Your task to perform on an android device: clear all cookies in the chrome app Image 0: 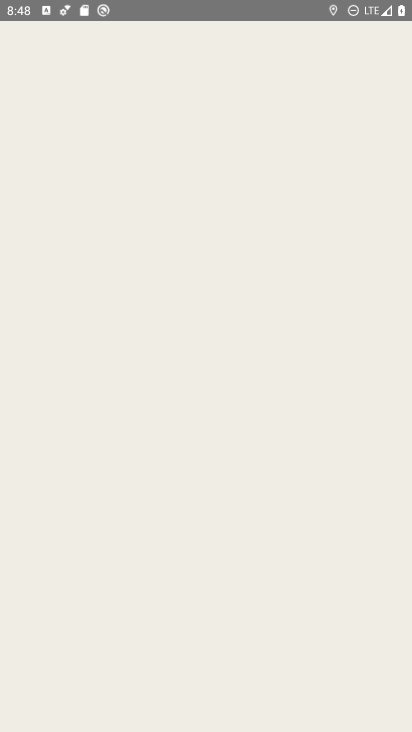
Step 0: press home button
Your task to perform on an android device: clear all cookies in the chrome app Image 1: 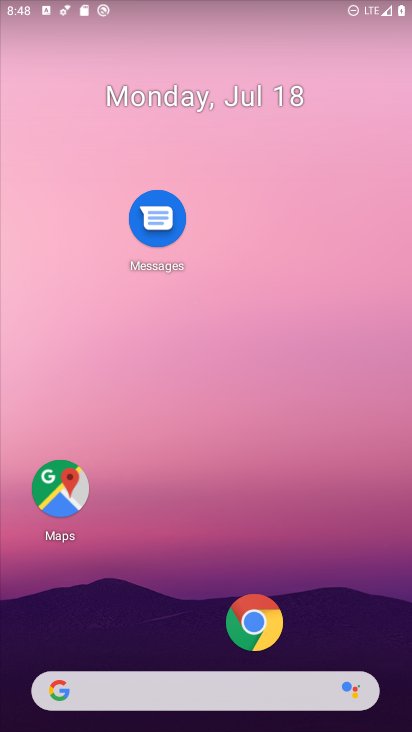
Step 1: drag from (209, 666) to (212, 131)
Your task to perform on an android device: clear all cookies in the chrome app Image 2: 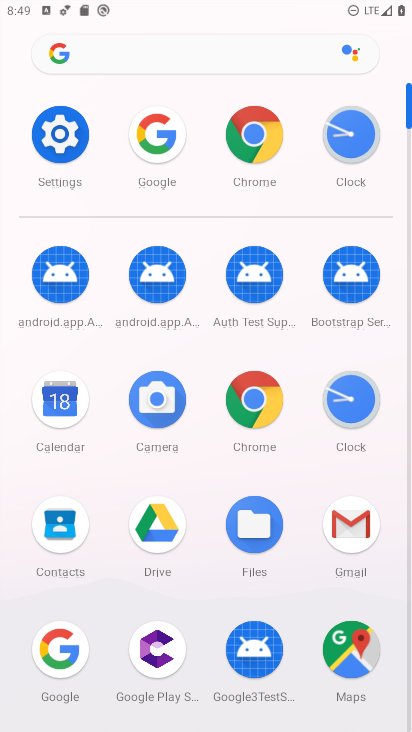
Step 2: click (263, 406)
Your task to perform on an android device: clear all cookies in the chrome app Image 3: 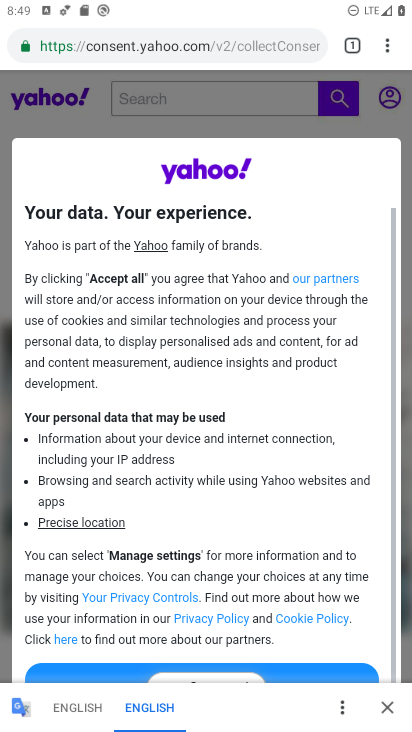
Step 3: click (388, 50)
Your task to perform on an android device: clear all cookies in the chrome app Image 4: 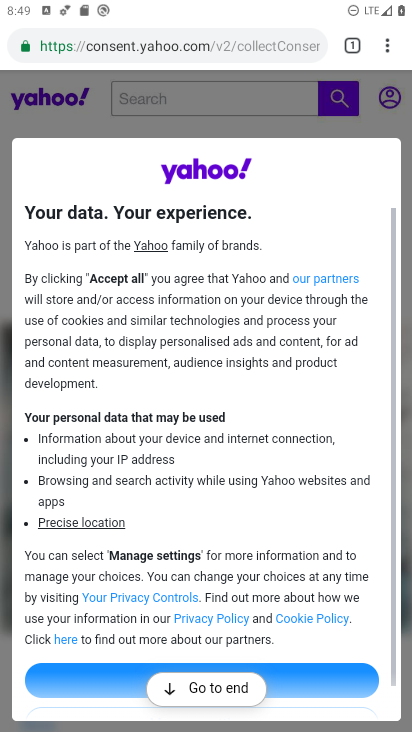
Step 4: click (392, 57)
Your task to perform on an android device: clear all cookies in the chrome app Image 5: 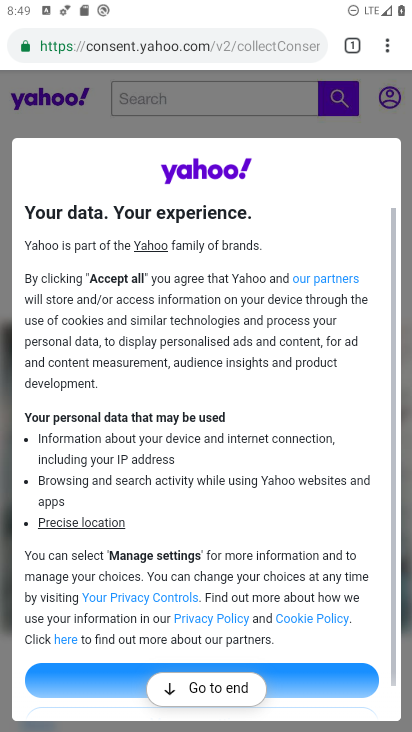
Step 5: click (390, 51)
Your task to perform on an android device: clear all cookies in the chrome app Image 6: 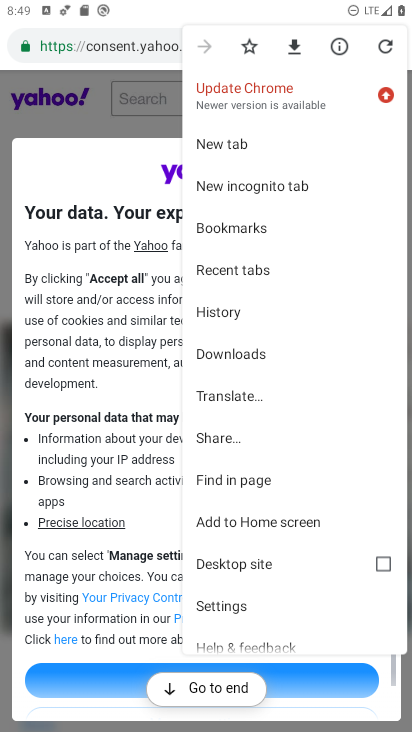
Step 6: click (222, 318)
Your task to perform on an android device: clear all cookies in the chrome app Image 7: 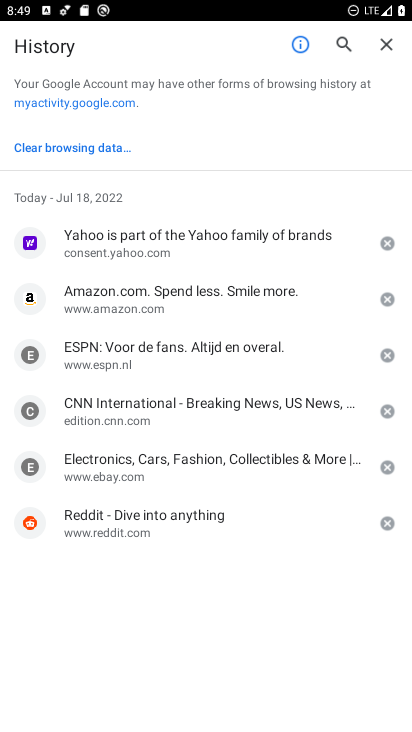
Step 7: click (83, 161)
Your task to perform on an android device: clear all cookies in the chrome app Image 8: 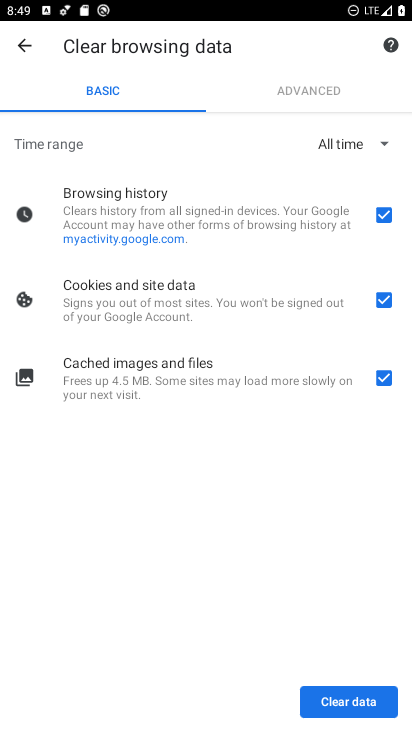
Step 8: click (384, 224)
Your task to perform on an android device: clear all cookies in the chrome app Image 9: 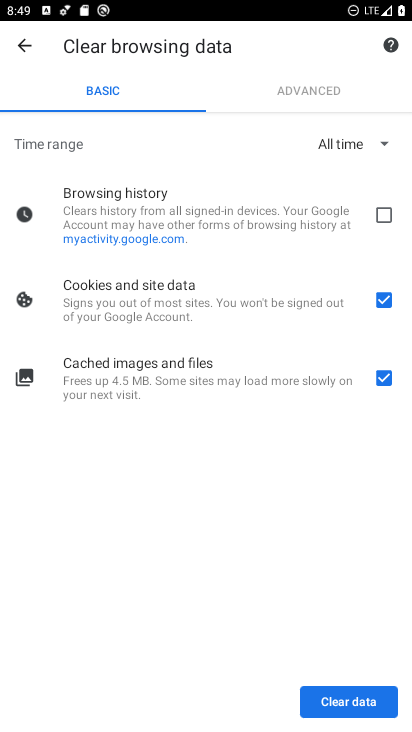
Step 9: click (382, 374)
Your task to perform on an android device: clear all cookies in the chrome app Image 10: 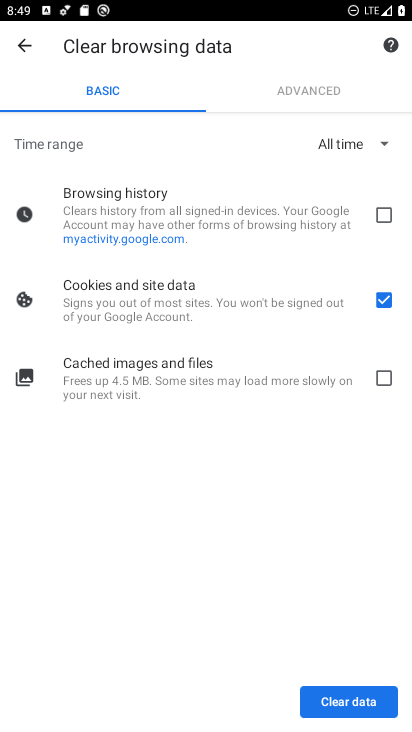
Step 10: click (392, 715)
Your task to perform on an android device: clear all cookies in the chrome app Image 11: 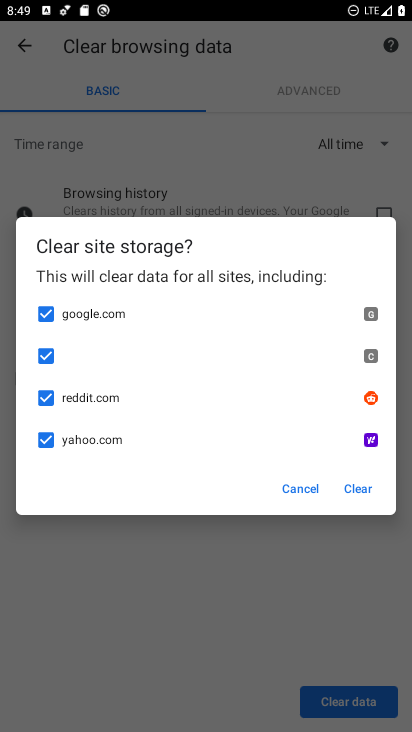
Step 11: click (365, 498)
Your task to perform on an android device: clear all cookies in the chrome app Image 12: 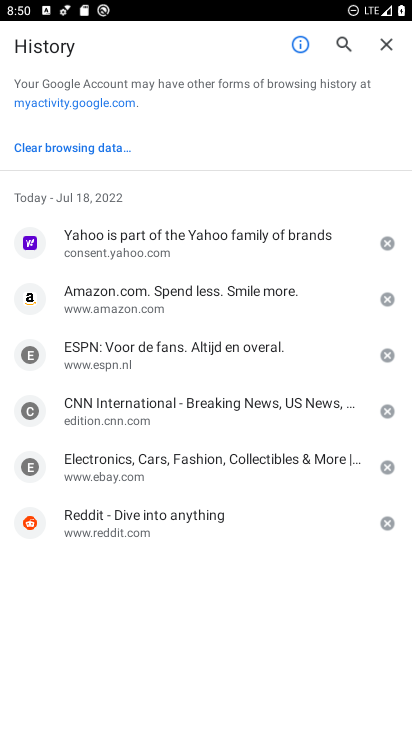
Step 12: task complete